Your task to perform on an android device: Open notification settings Image 0: 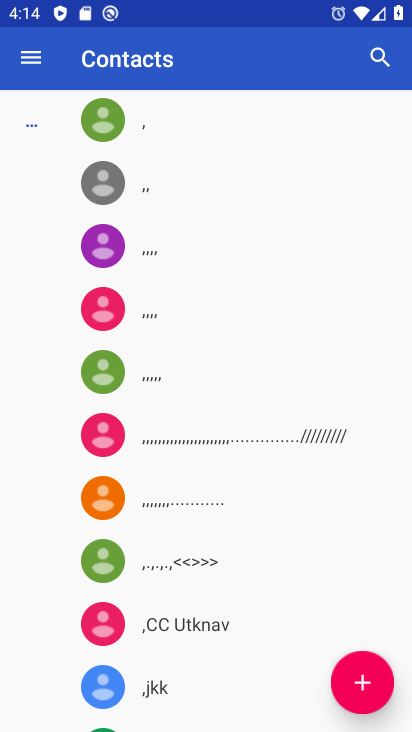
Step 0: press home button
Your task to perform on an android device: Open notification settings Image 1: 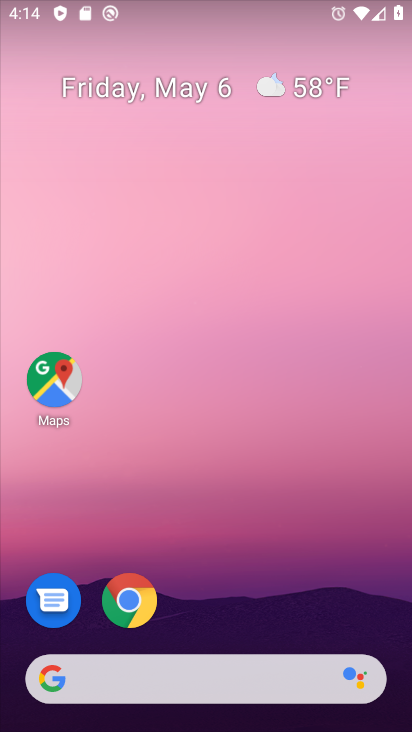
Step 1: drag from (203, 619) to (288, 66)
Your task to perform on an android device: Open notification settings Image 2: 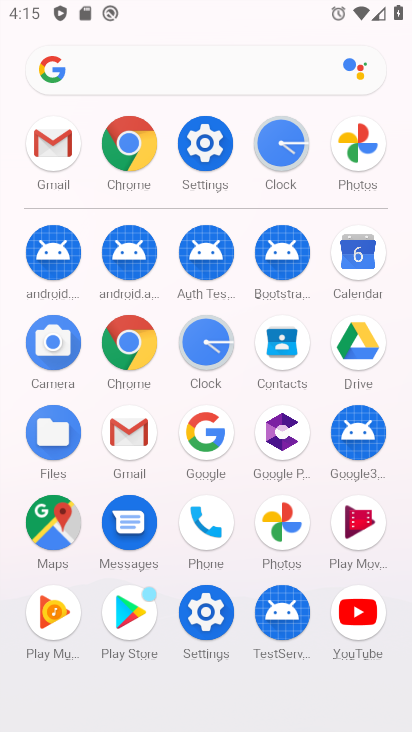
Step 2: click (215, 625)
Your task to perform on an android device: Open notification settings Image 3: 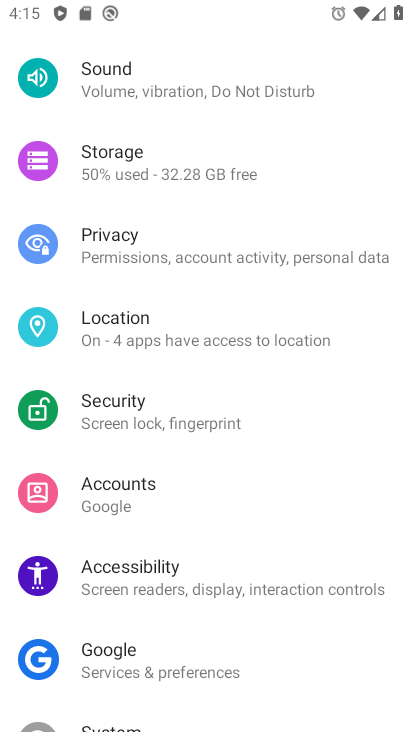
Step 3: drag from (169, 297) to (177, 652)
Your task to perform on an android device: Open notification settings Image 4: 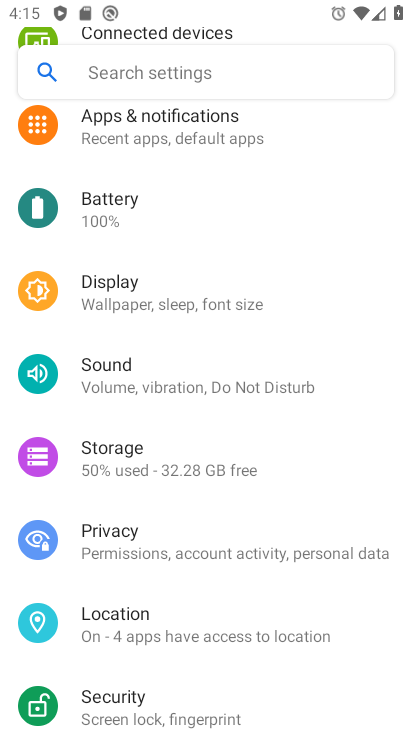
Step 4: click (184, 142)
Your task to perform on an android device: Open notification settings Image 5: 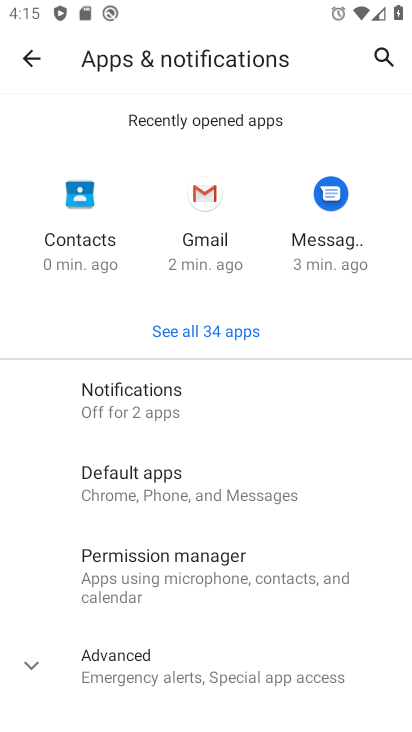
Step 5: drag from (155, 541) to (172, 433)
Your task to perform on an android device: Open notification settings Image 6: 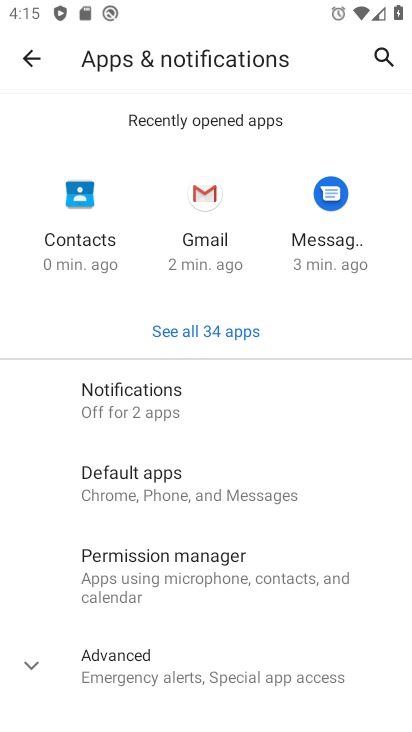
Step 6: click (119, 399)
Your task to perform on an android device: Open notification settings Image 7: 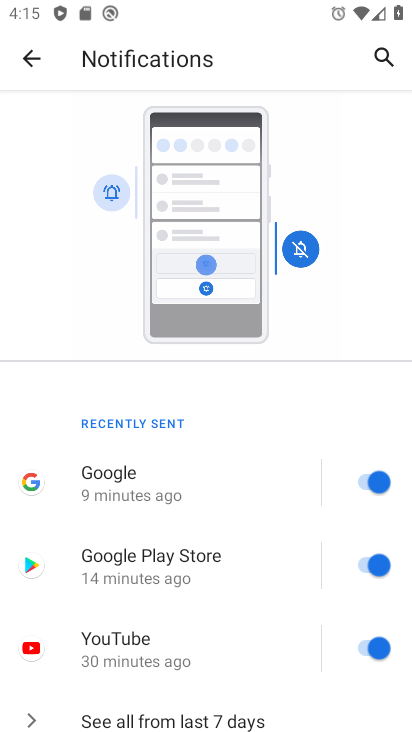
Step 7: task complete